Your task to perform on an android device: uninstall "Walmart Shopping & Grocery" Image 0: 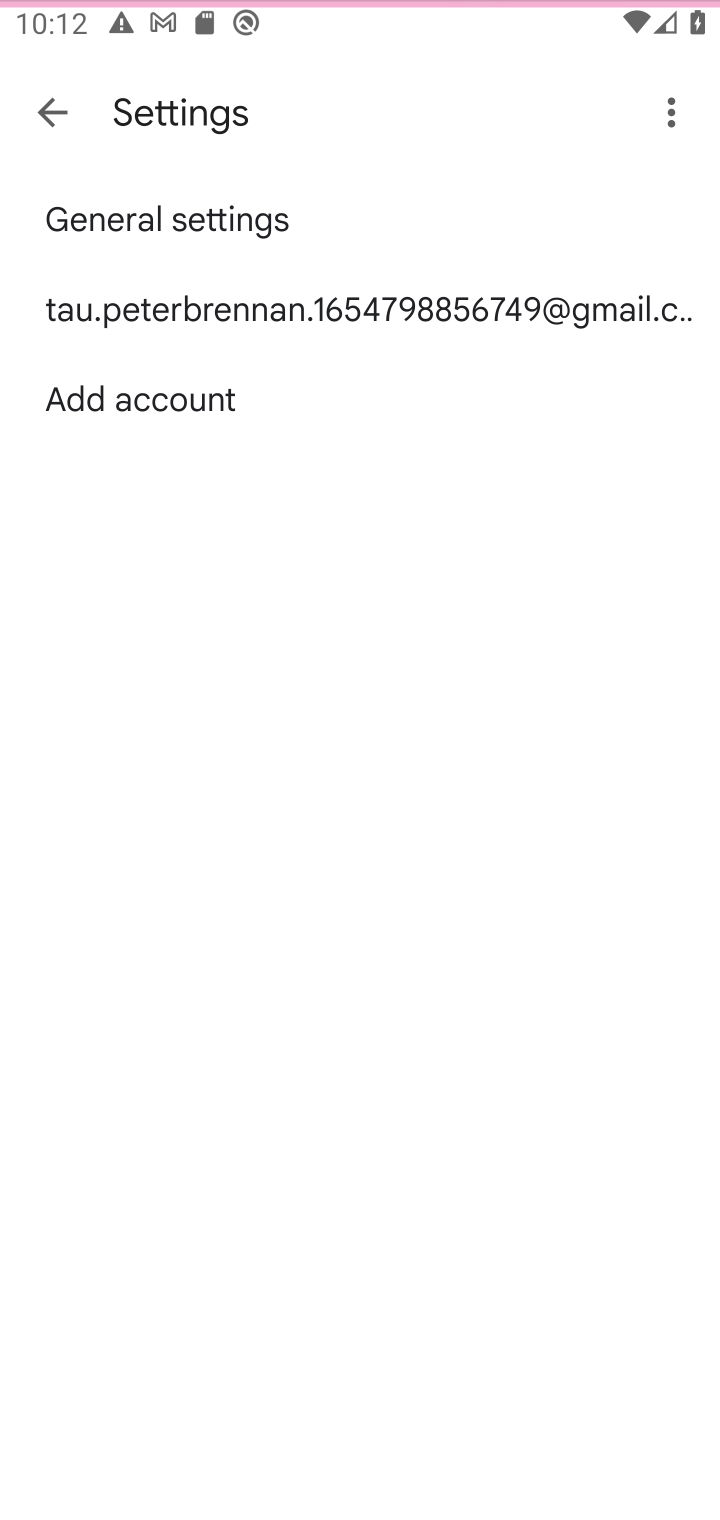
Step 0: press home button
Your task to perform on an android device: uninstall "Walmart Shopping & Grocery" Image 1: 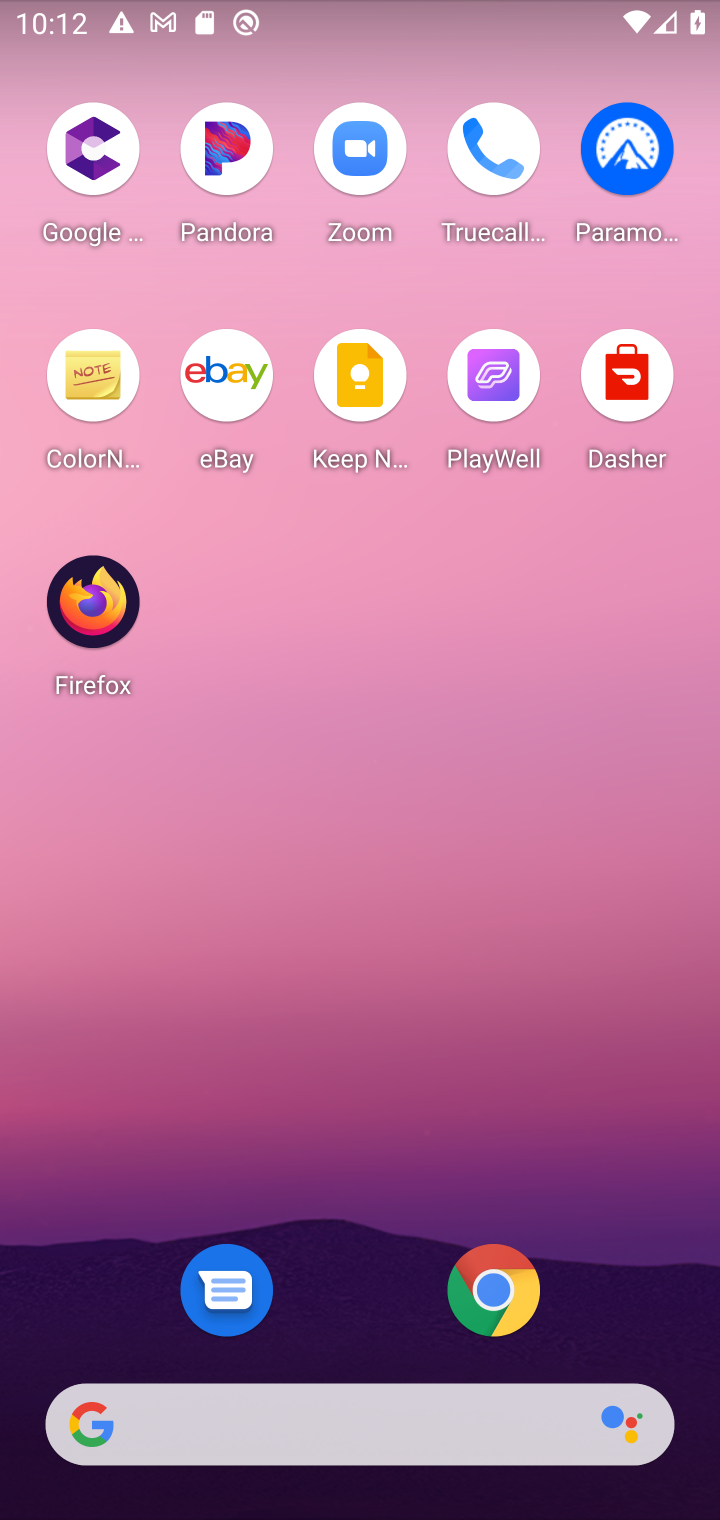
Step 1: press home button
Your task to perform on an android device: uninstall "Walmart Shopping & Grocery" Image 2: 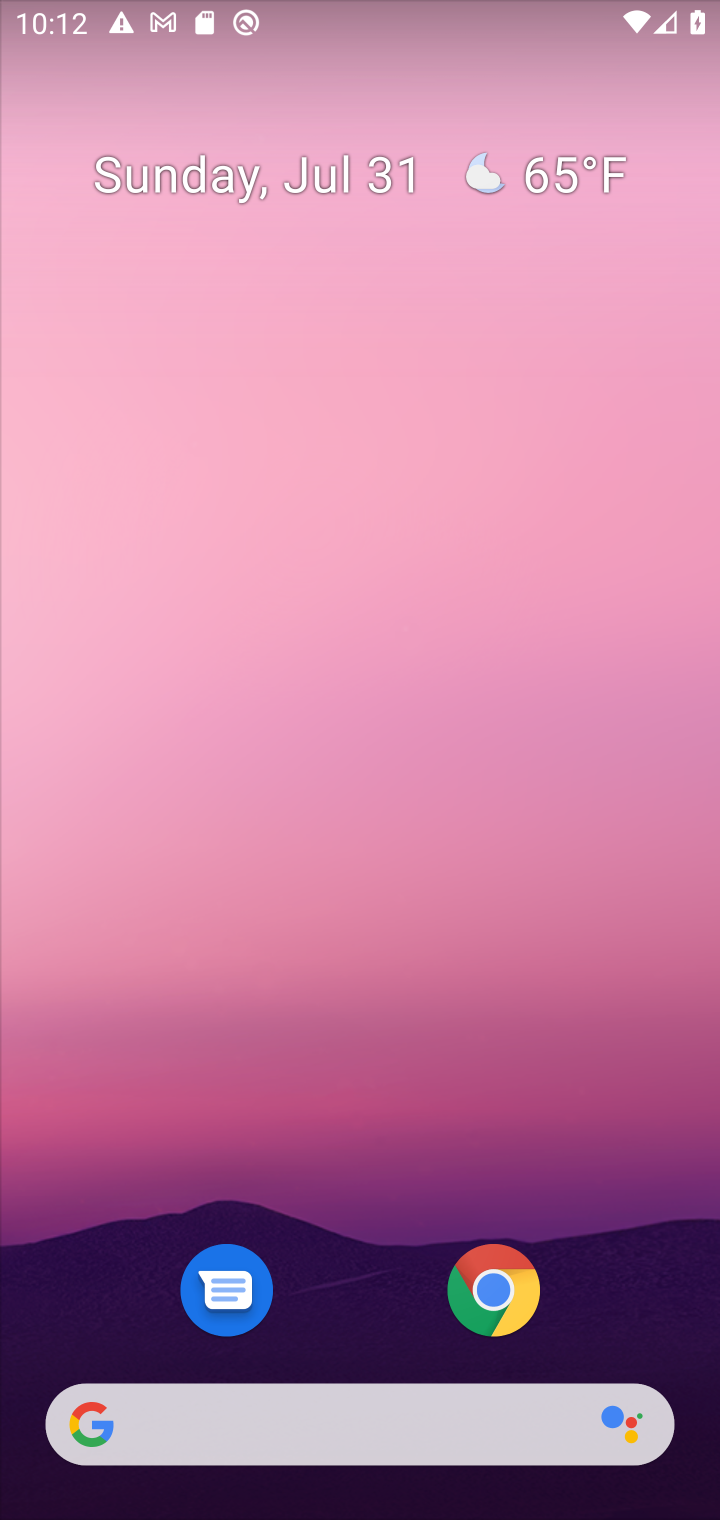
Step 2: drag from (624, 1082) to (594, 101)
Your task to perform on an android device: uninstall "Walmart Shopping & Grocery" Image 3: 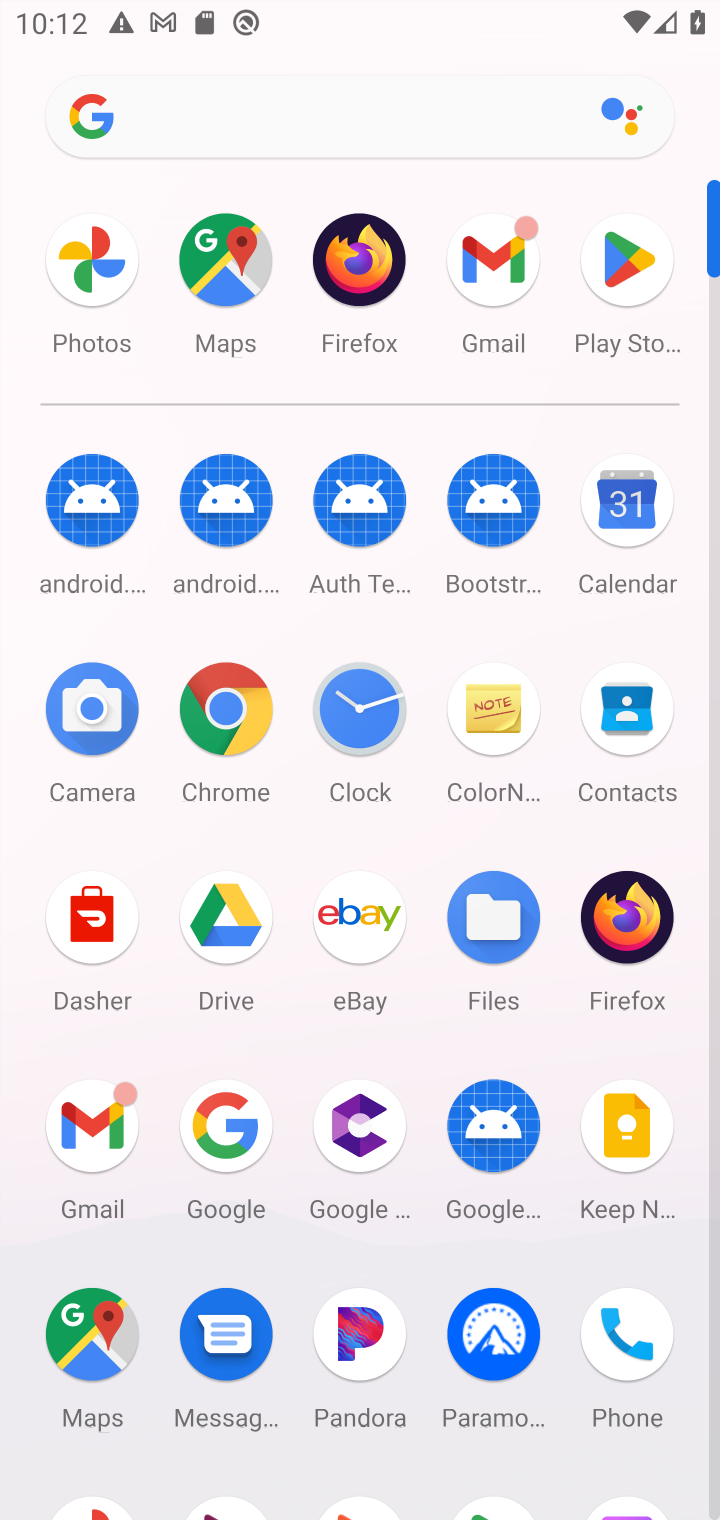
Step 3: click (617, 250)
Your task to perform on an android device: uninstall "Walmart Shopping & Grocery" Image 4: 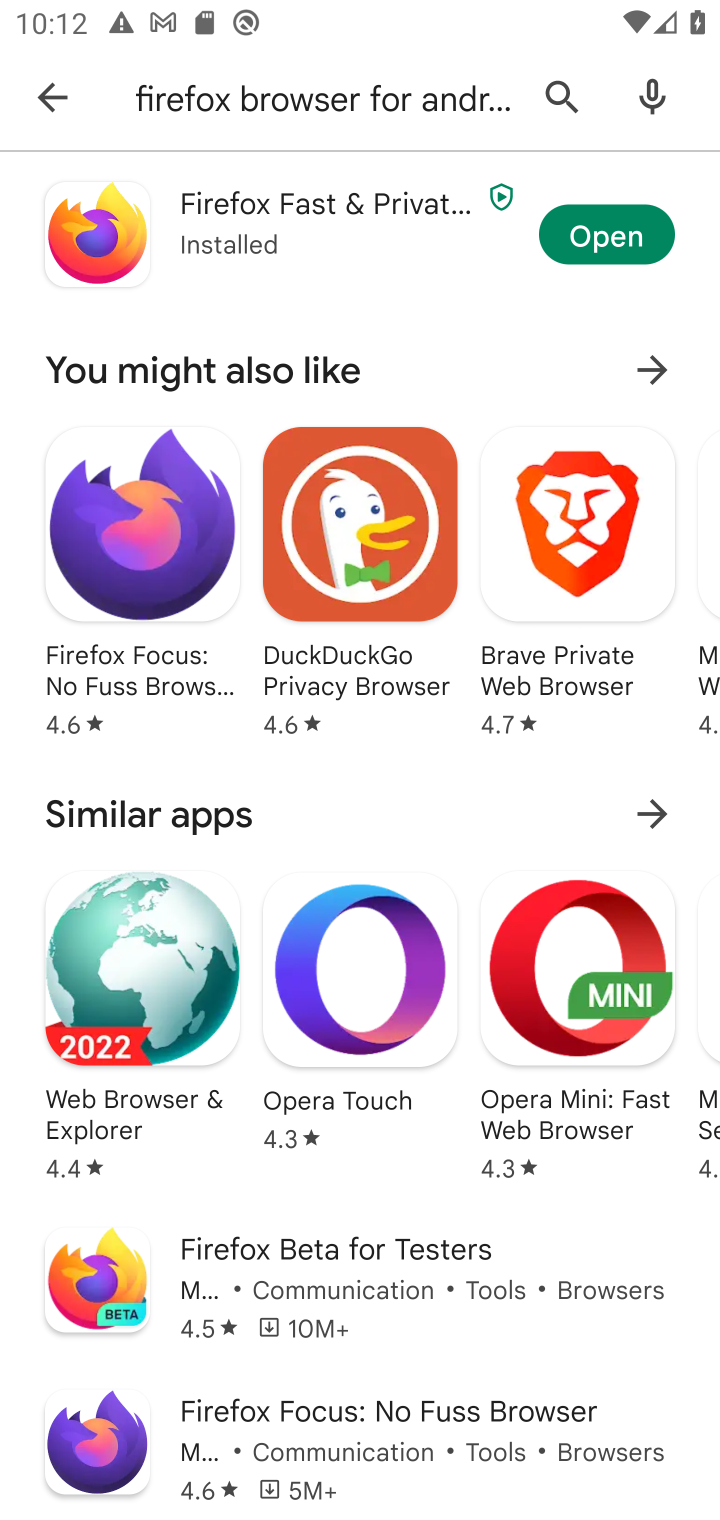
Step 4: click (556, 89)
Your task to perform on an android device: uninstall "Walmart Shopping & Grocery" Image 5: 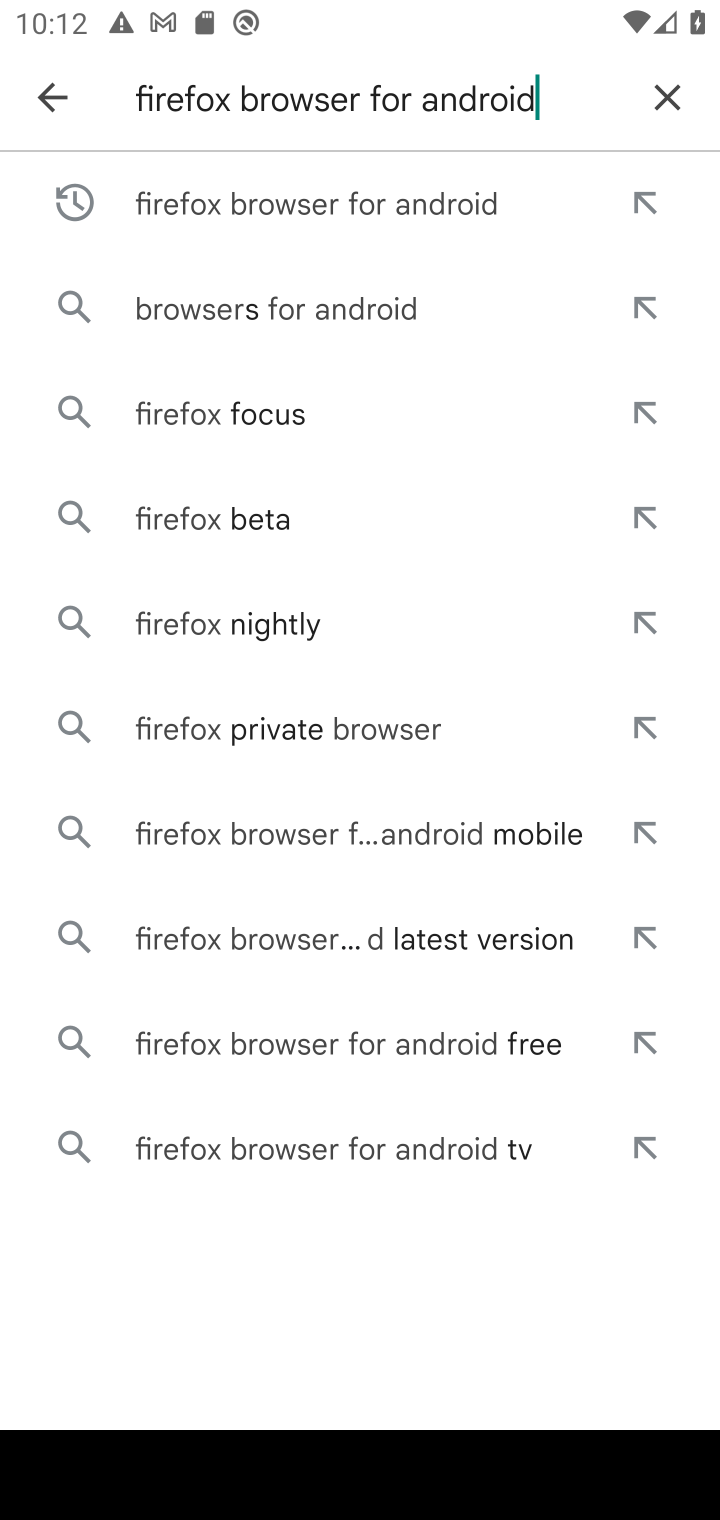
Step 5: click (672, 100)
Your task to perform on an android device: uninstall "Walmart Shopping & Grocery" Image 6: 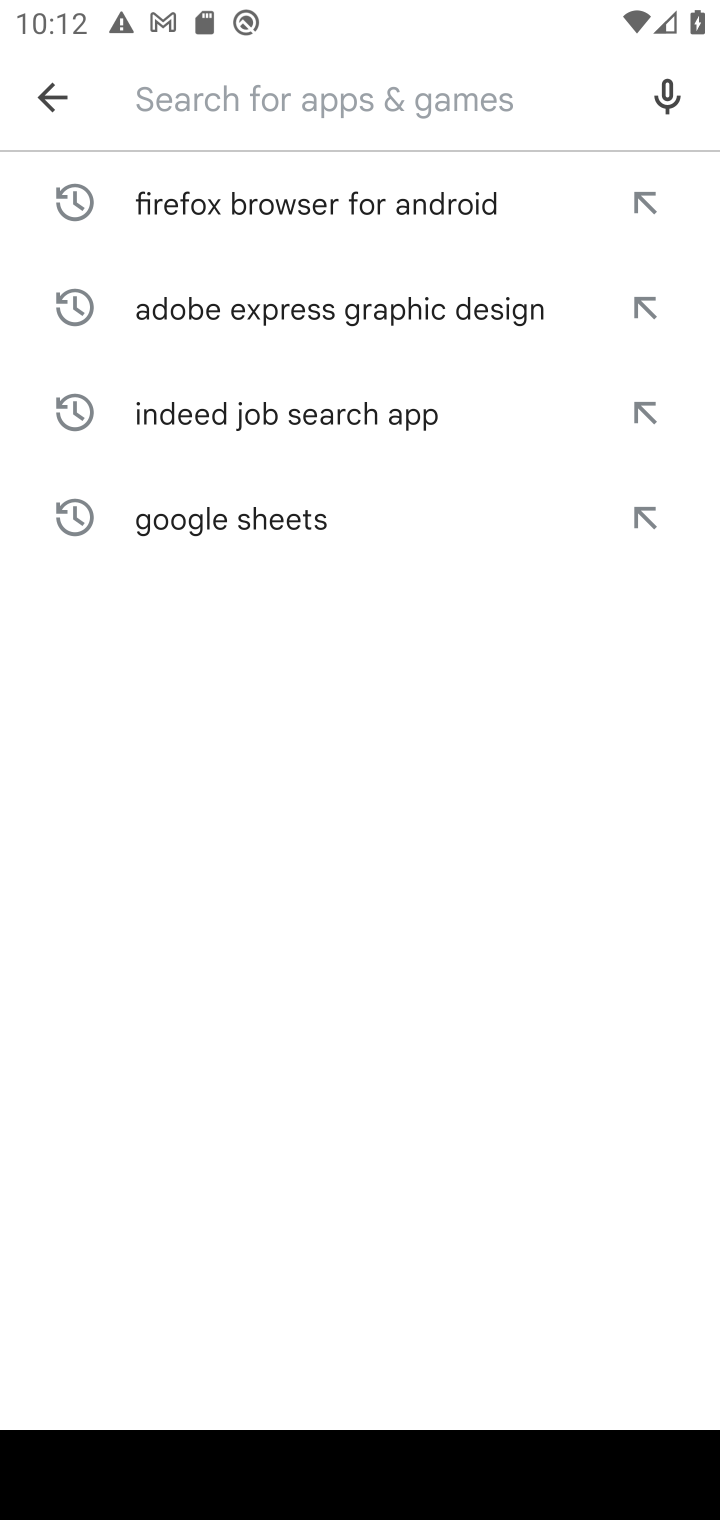
Step 6: type "Walmart Shopping & Grocery"
Your task to perform on an android device: uninstall "Walmart Shopping & Grocery" Image 7: 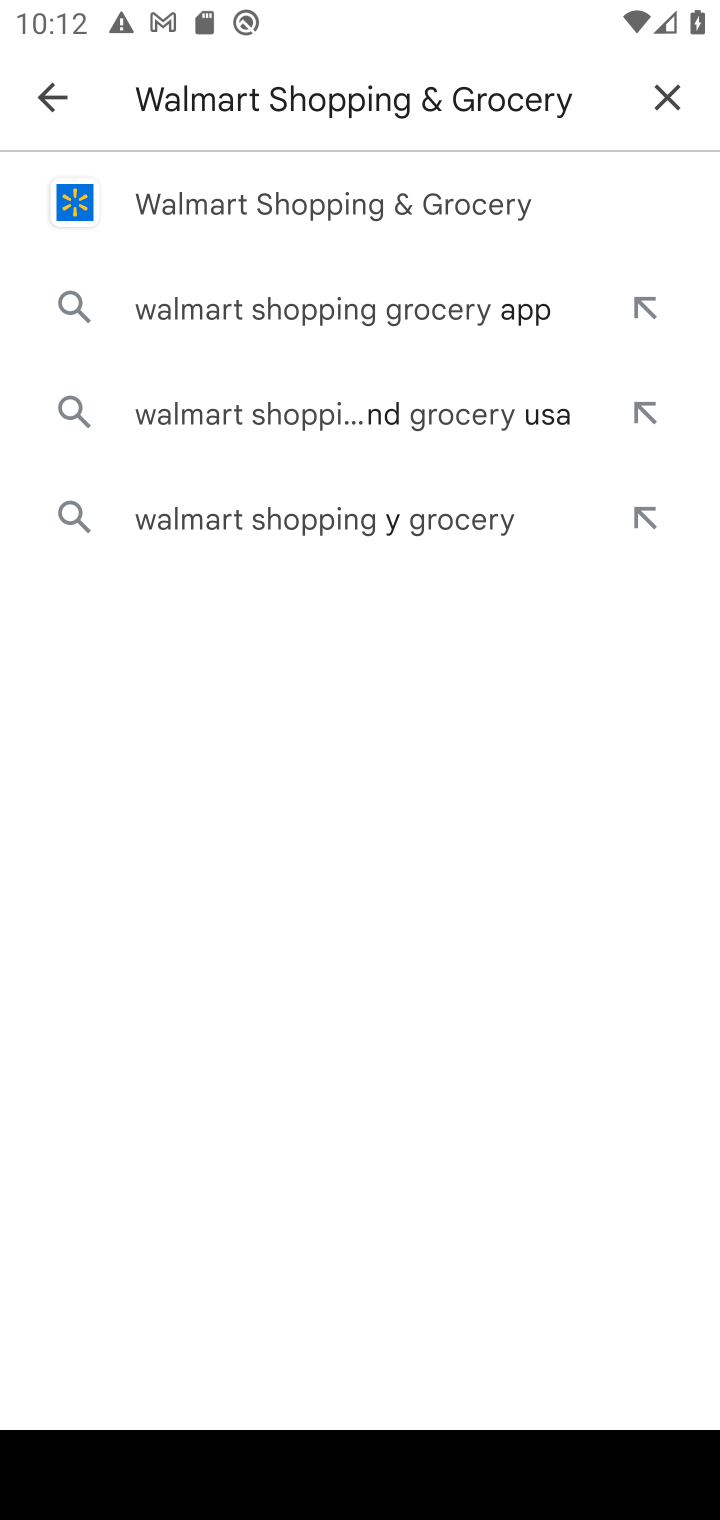
Step 7: click (497, 195)
Your task to perform on an android device: uninstall "Walmart Shopping & Grocery" Image 8: 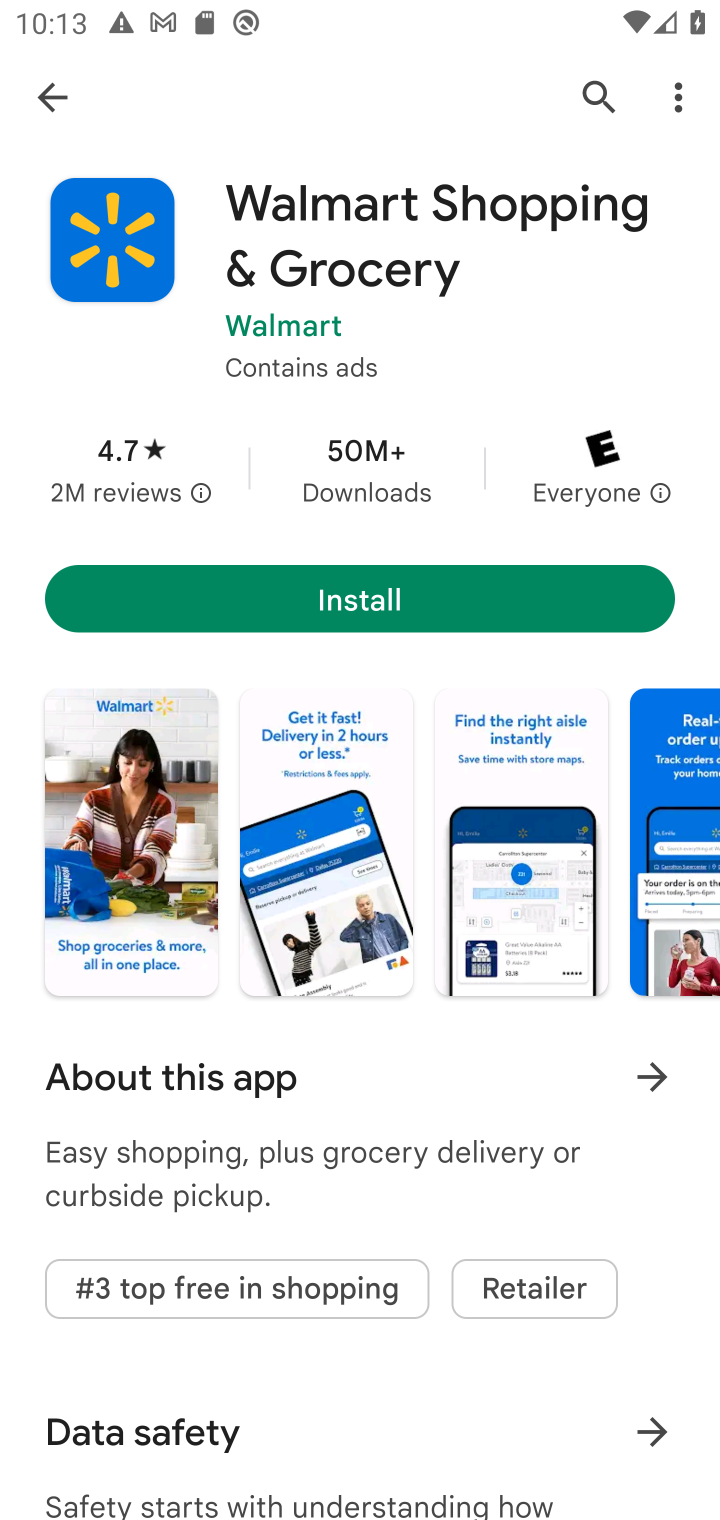
Step 8: task complete